Your task to perform on an android device: Open ESPN.com Image 0: 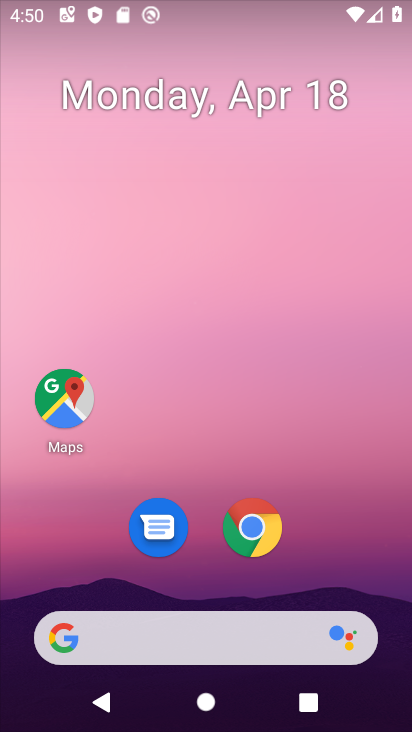
Step 0: click (248, 529)
Your task to perform on an android device: Open ESPN.com Image 1: 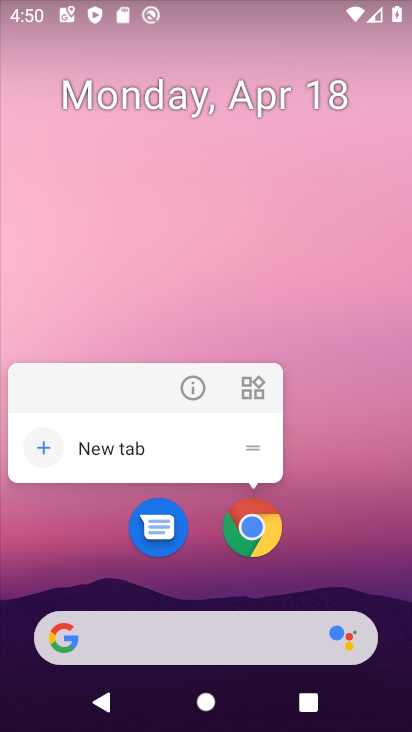
Step 1: click (248, 529)
Your task to perform on an android device: Open ESPN.com Image 2: 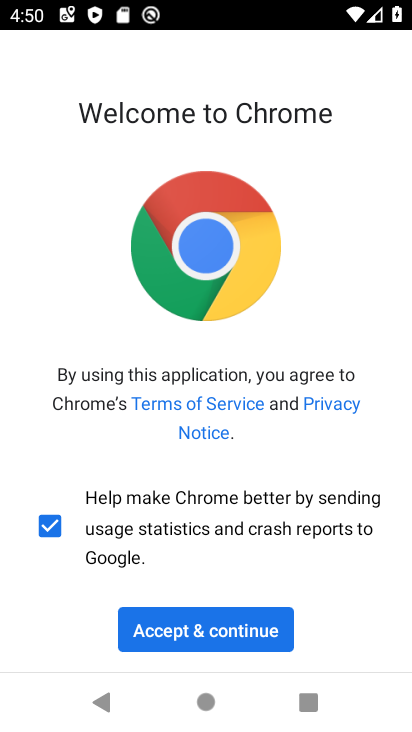
Step 2: click (238, 629)
Your task to perform on an android device: Open ESPN.com Image 3: 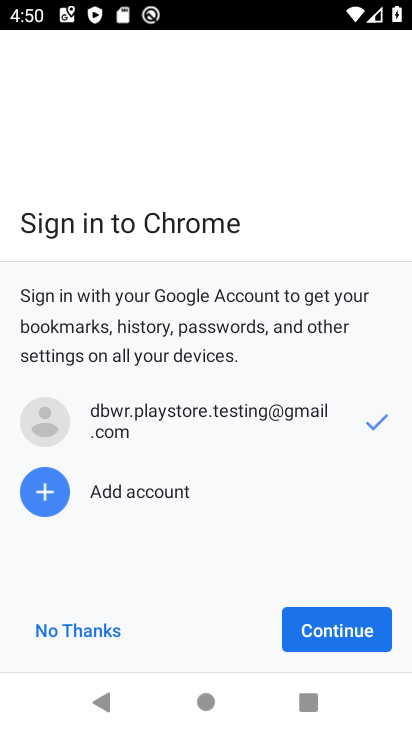
Step 3: click (346, 637)
Your task to perform on an android device: Open ESPN.com Image 4: 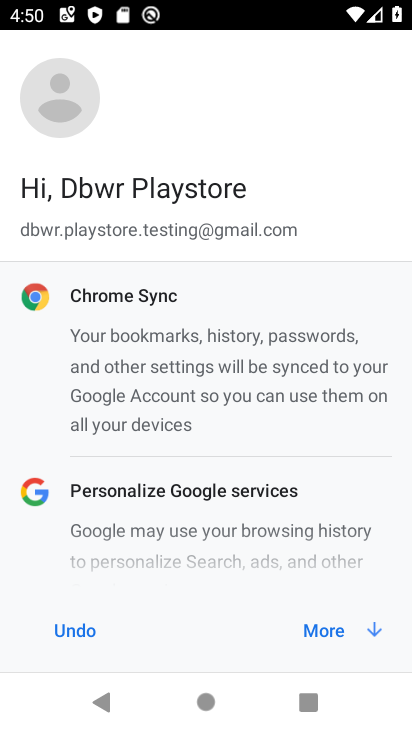
Step 4: click (372, 627)
Your task to perform on an android device: Open ESPN.com Image 5: 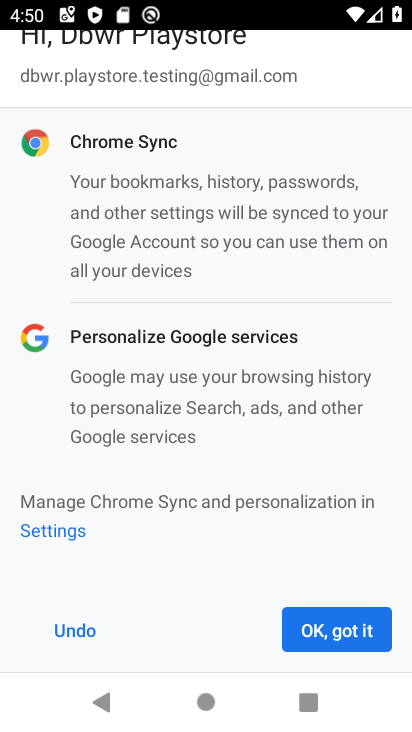
Step 5: click (333, 627)
Your task to perform on an android device: Open ESPN.com Image 6: 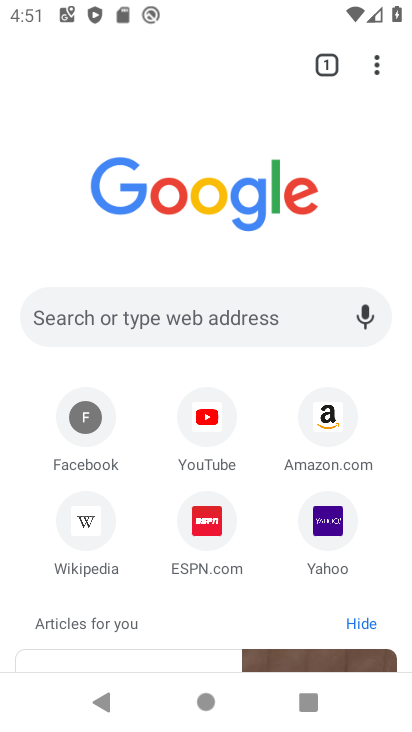
Step 6: click (181, 320)
Your task to perform on an android device: Open ESPN.com Image 7: 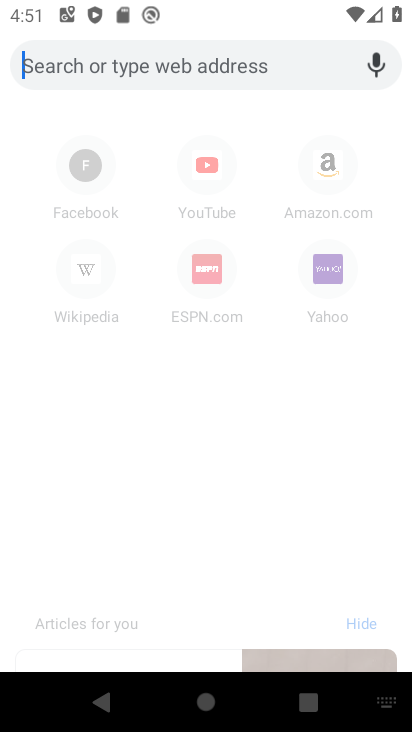
Step 7: type "ESPN.com"
Your task to perform on an android device: Open ESPN.com Image 8: 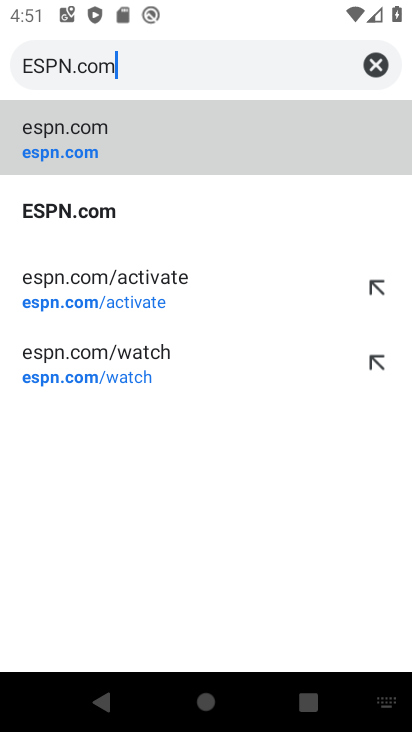
Step 8: click (98, 213)
Your task to perform on an android device: Open ESPN.com Image 9: 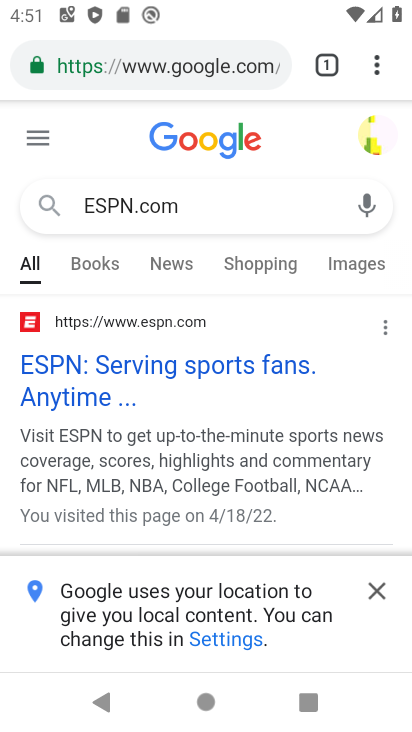
Step 9: click (380, 600)
Your task to perform on an android device: Open ESPN.com Image 10: 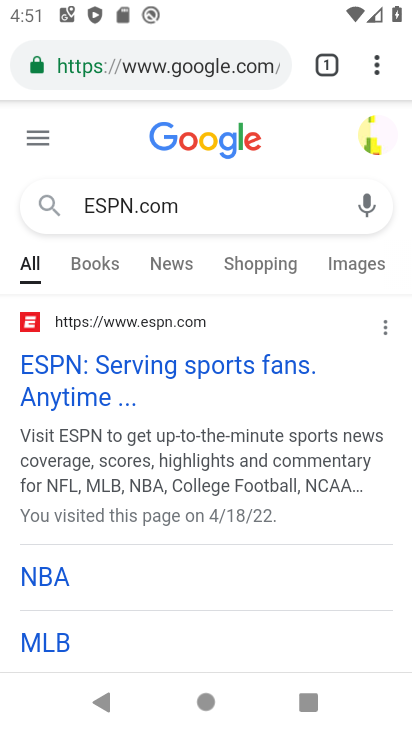
Step 10: click (285, 370)
Your task to perform on an android device: Open ESPN.com Image 11: 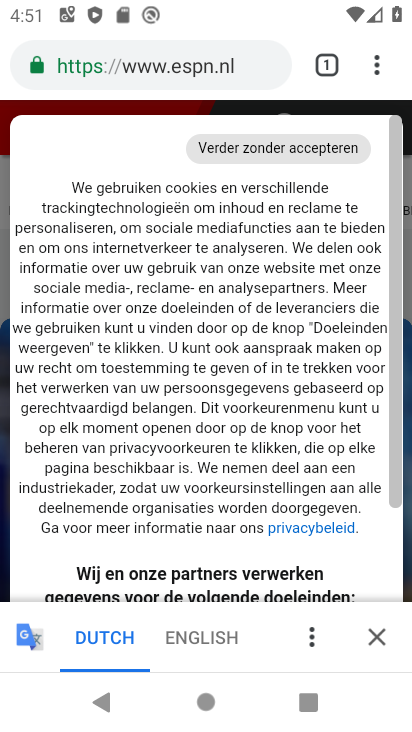
Step 11: click (381, 638)
Your task to perform on an android device: Open ESPN.com Image 12: 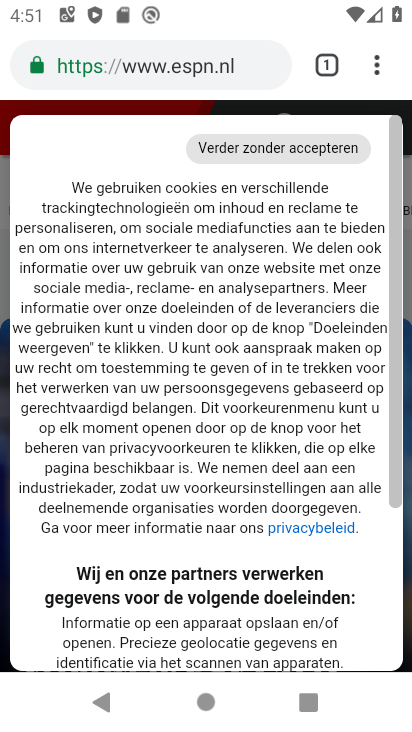
Step 12: drag from (233, 612) to (209, 330)
Your task to perform on an android device: Open ESPN.com Image 13: 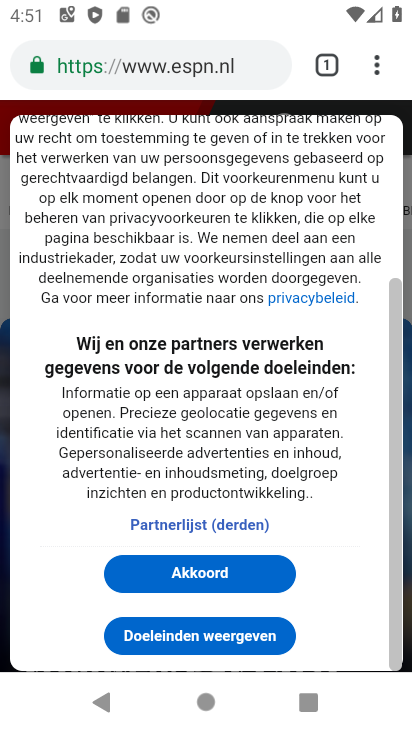
Step 13: click (176, 638)
Your task to perform on an android device: Open ESPN.com Image 14: 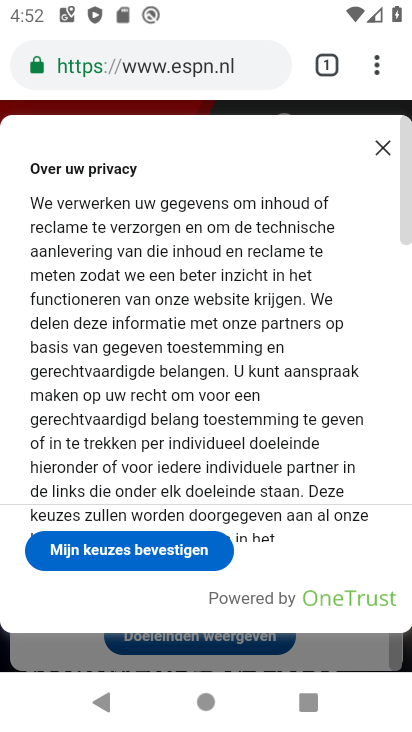
Step 14: click (386, 149)
Your task to perform on an android device: Open ESPN.com Image 15: 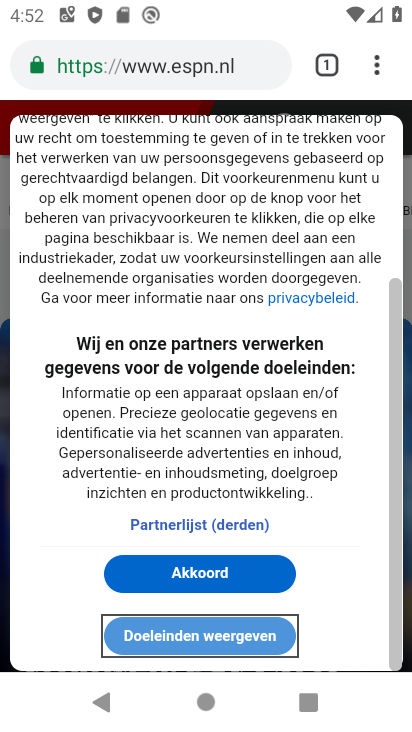
Step 15: click (211, 568)
Your task to perform on an android device: Open ESPN.com Image 16: 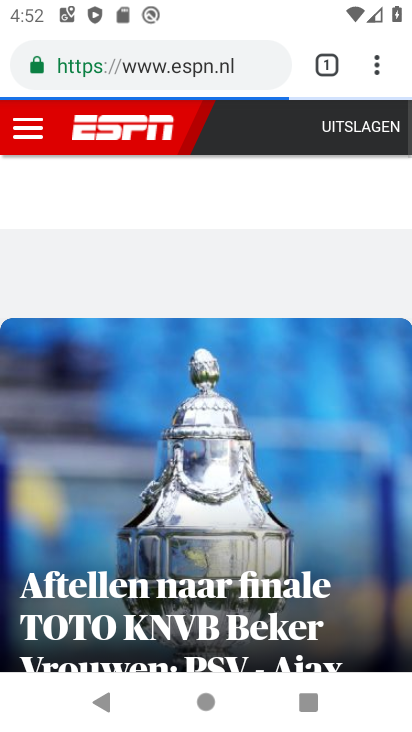
Step 16: drag from (230, 619) to (238, 348)
Your task to perform on an android device: Open ESPN.com Image 17: 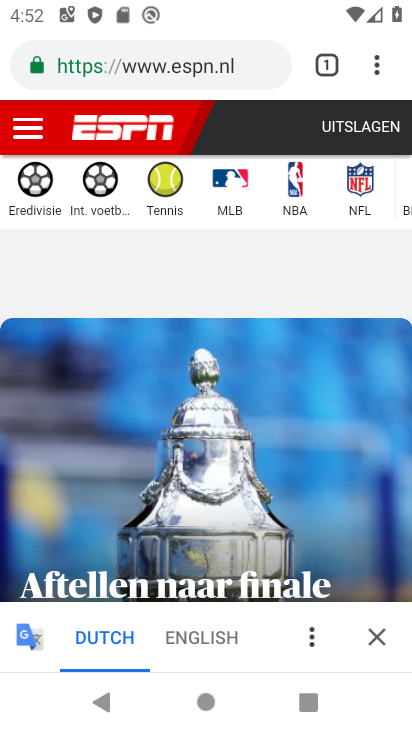
Step 17: click (369, 646)
Your task to perform on an android device: Open ESPN.com Image 18: 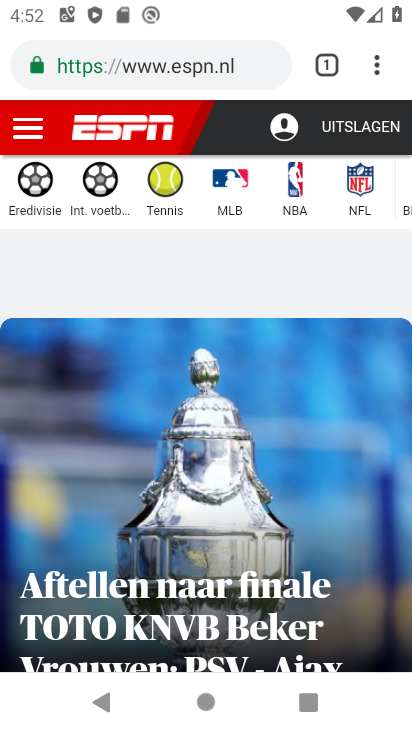
Step 18: task complete